Your task to perform on an android device: Set the phone to "Do not disturb". Image 0: 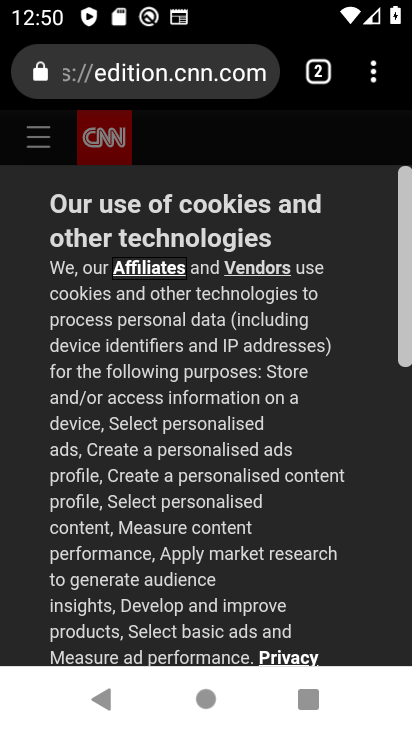
Step 0: press home button
Your task to perform on an android device: Set the phone to "Do not disturb". Image 1: 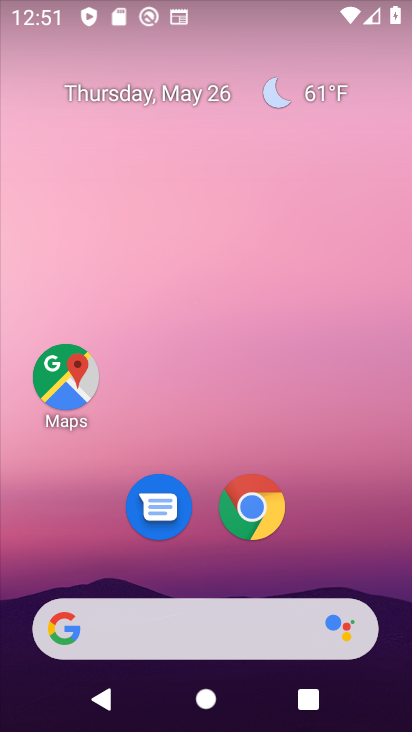
Step 1: drag from (365, 559) to (269, 157)
Your task to perform on an android device: Set the phone to "Do not disturb". Image 2: 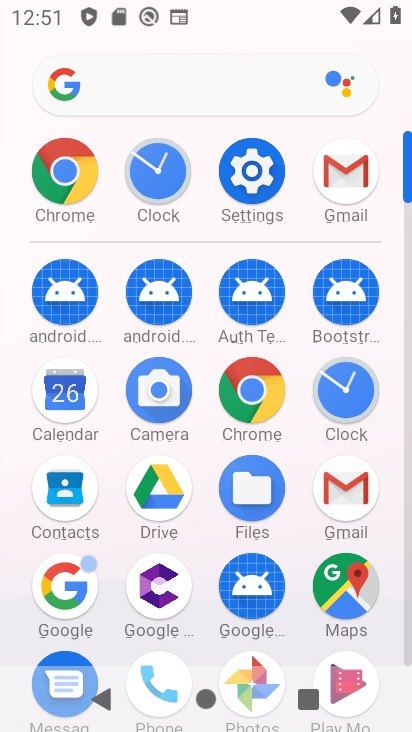
Step 2: click (269, 157)
Your task to perform on an android device: Set the phone to "Do not disturb". Image 3: 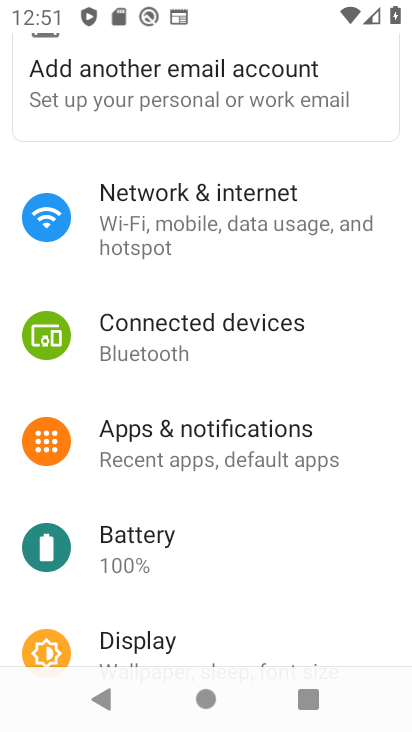
Step 3: drag from (212, 524) to (173, 74)
Your task to perform on an android device: Set the phone to "Do not disturb". Image 4: 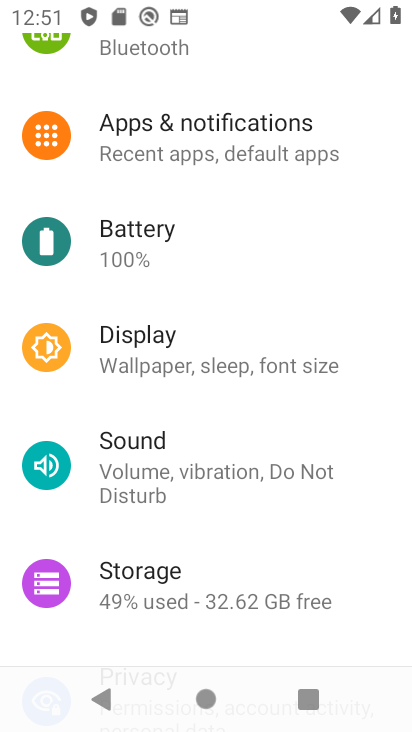
Step 4: click (163, 487)
Your task to perform on an android device: Set the phone to "Do not disturb". Image 5: 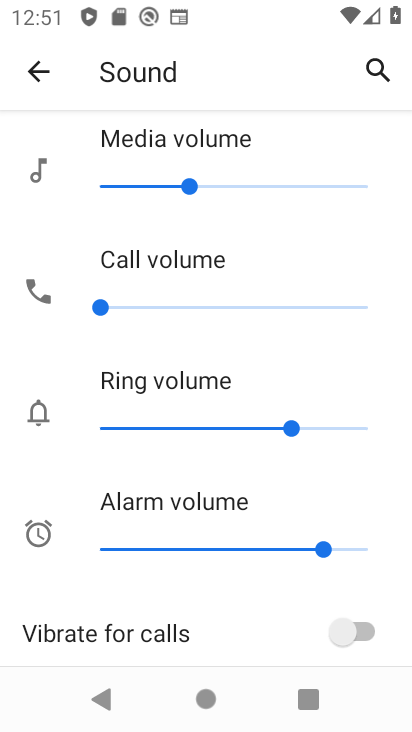
Step 5: drag from (202, 608) to (97, 186)
Your task to perform on an android device: Set the phone to "Do not disturb". Image 6: 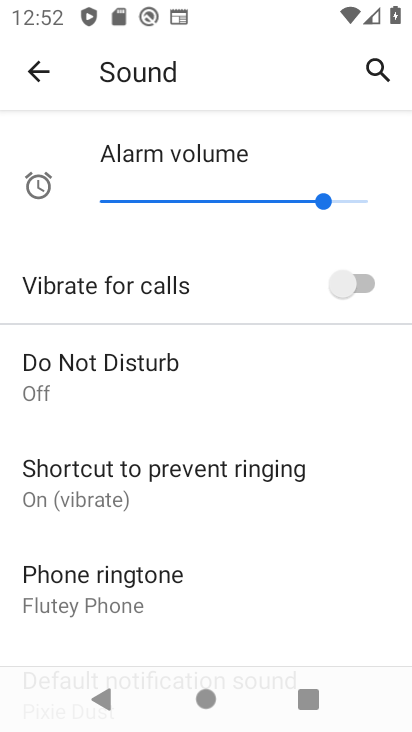
Step 6: click (49, 389)
Your task to perform on an android device: Set the phone to "Do not disturb". Image 7: 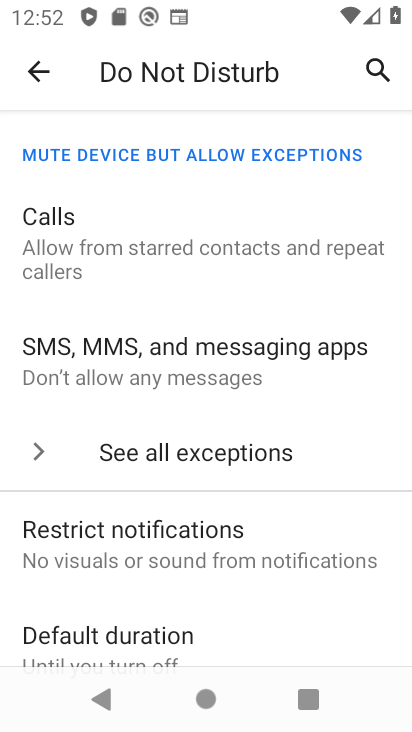
Step 7: drag from (322, 513) to (284, 193)
Your task to perform on an android device: Set the phone to "Do not disturb". Image 8: 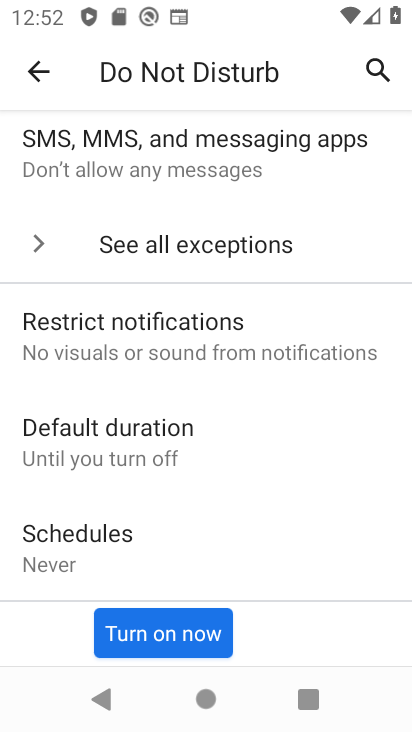
Step 8: click (215, 633)
Your task to perform on an android device: Set the phone to "Do not disturb". Image 9: 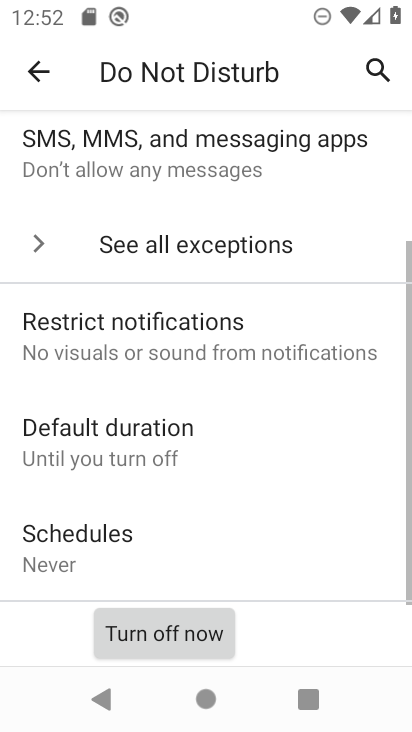
Step 9: task complete